Your task to perform on an android device: When is my next meeting? Image 0: 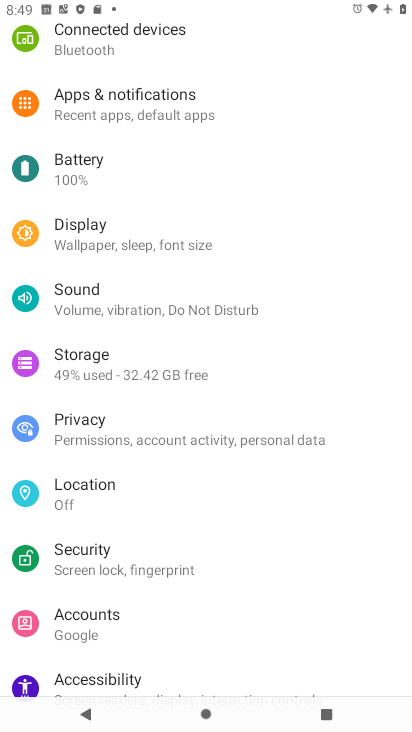
Step 0: press home button
Your task to perform on an android device: When is my next meeting? Image 1: 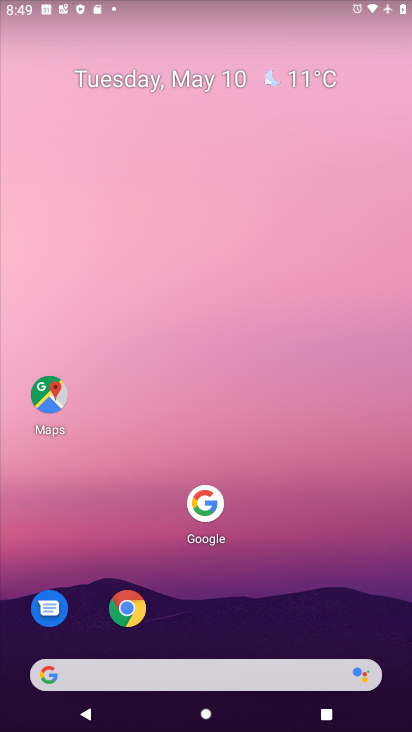
Step 1: drag from (177, 681) to (271, 294)
Your task to perform on an android device: When is my next meeting? Image 2: 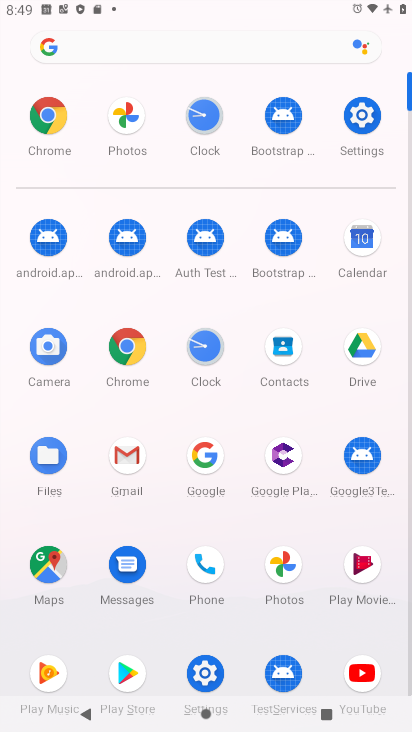
Step 2: click (360, 248)
Your task to perform on an android device: When is my next meeting? Image 3: 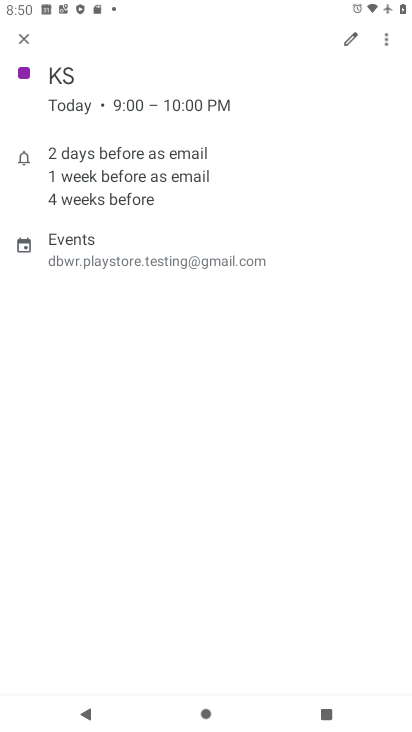
Step 3: task complete